Your task to perform on an android device: see tabs open on other devices in the chrome app Image 0: 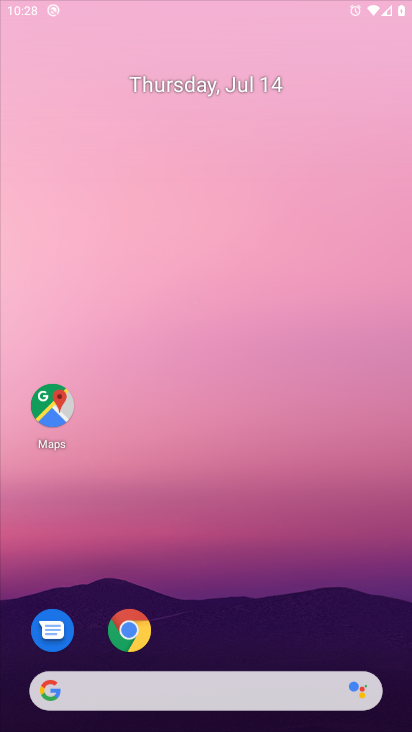
Step 0: click (300, 20)
Your task to perform on an android device: see tabs open on other devices in the chrome app Image 1: 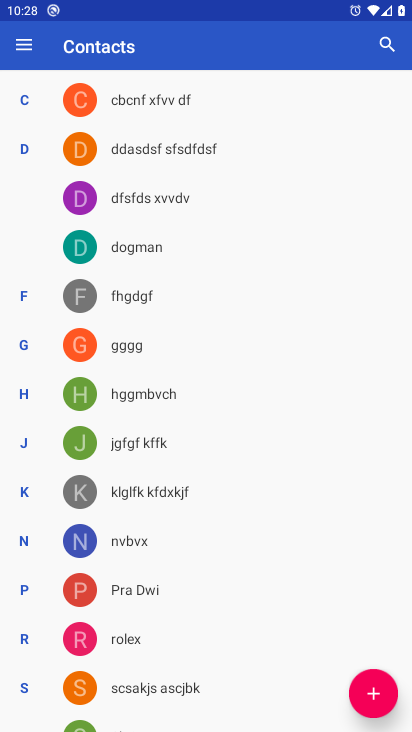
Step 1: press home button
Your task to perform on an android device: see tabs open on other devices in the chrome app Image 2: 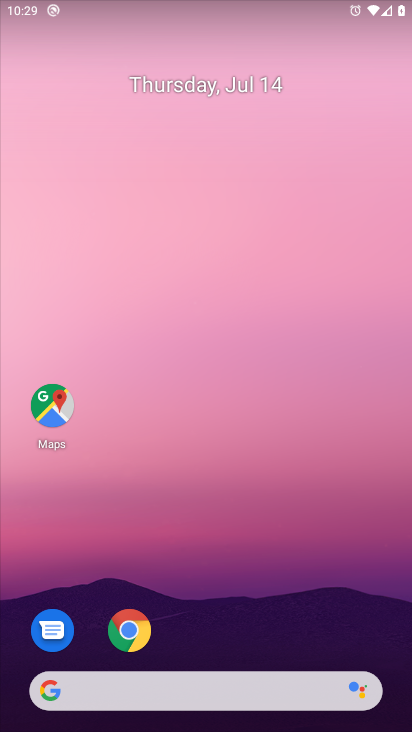
Step 2: click (157, 650)
Your task to perform on an android device: see tabs open on other devices in the chrome app Image 3: 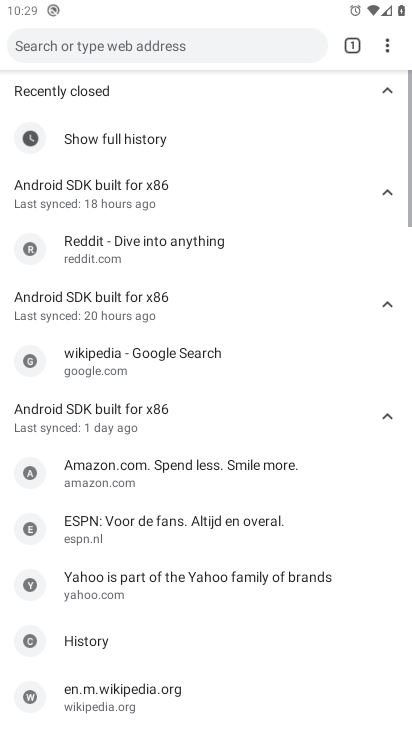
Step 3: click (391, 42)
Your task to perform on an android device: see tabs open on other devices in the chrome app Image 4: 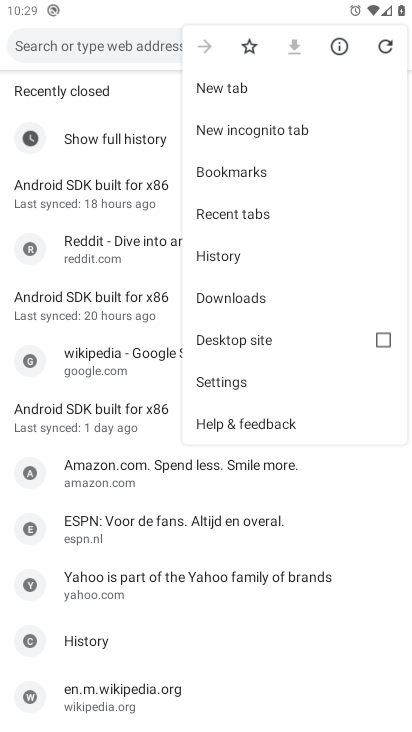
Step 4: click (244, 219)
Your task to perform on an android device: see tabs open on other devices in the chrome app Image 5: 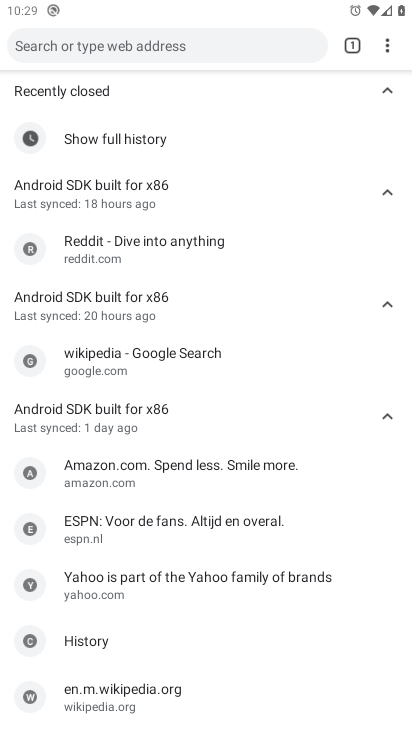
Step 5: task complete